Your task to perform on an android device: open chrome privacy settings Image 0: 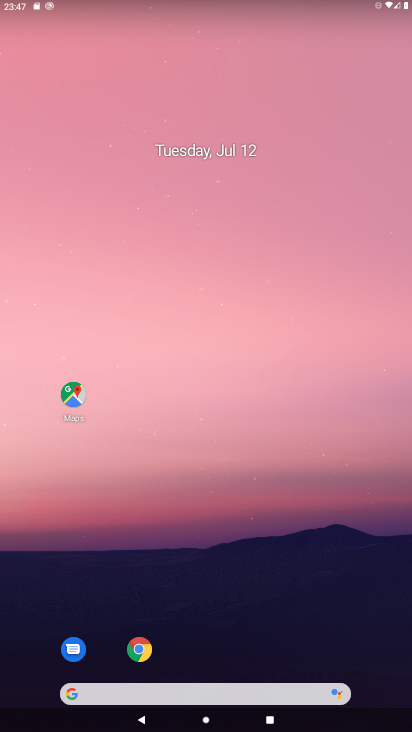
Step 0: click (140, 653)
Your task to perform on an android device: open chrome privacy settings Image 1: 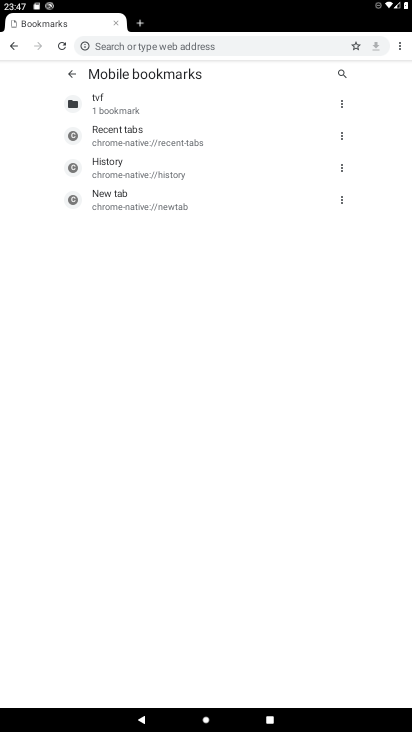
Step 1: click (398, 51)
Your task to perform on an android device: open chrome privacy settings Image 2: 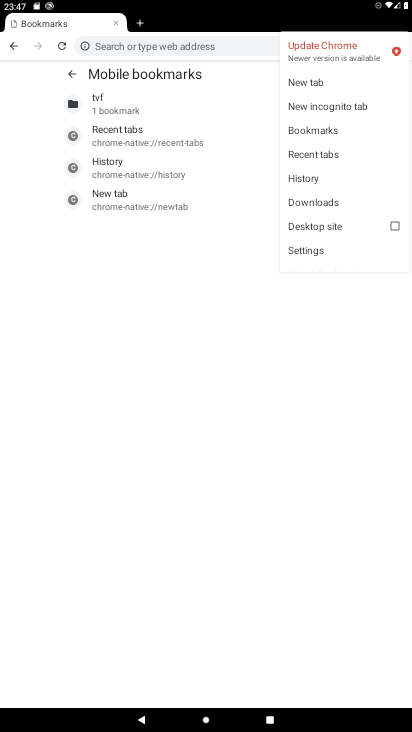
Step 2: click (303, 251)
Your task to perform on an android device: open chrome privacy settings Image 3: 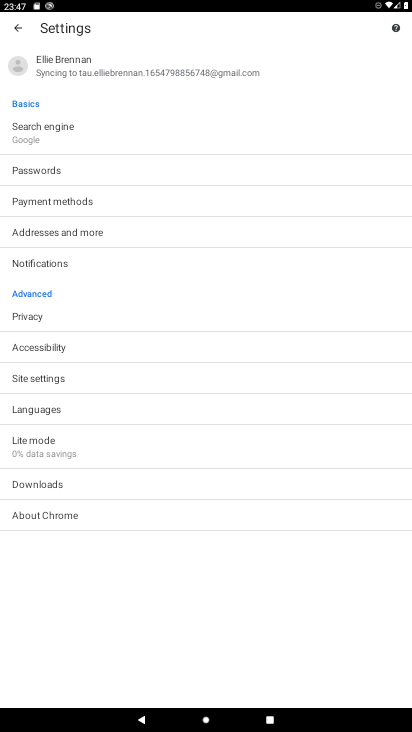
Step 3: click (22, 314)
Your task to perform on an android device: open chrome privacy settings Image 4: 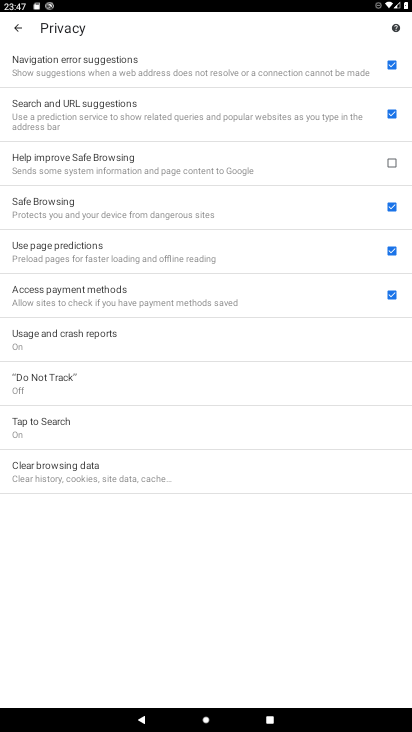
Step 4: task complete